Your task to perform on an android device: toggle priority inbox in the gmail app Image 0: 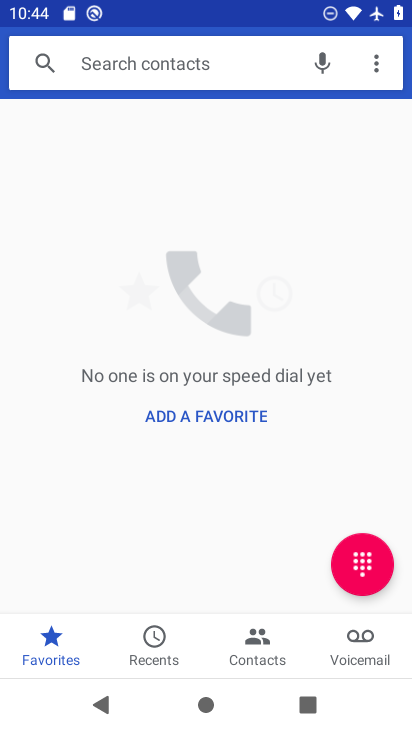
Step 0: press home button
Your task to perform on an android device: toggle priority inbox in the gmail app Image 1: 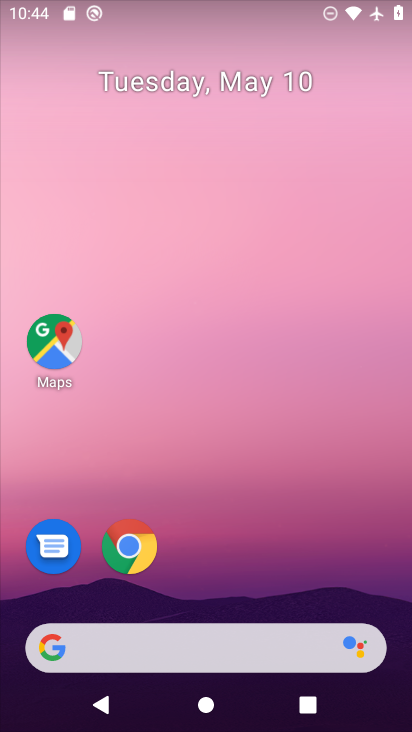
Step 1: drag from (334, 591) to (296, 149)
Your task to perform on an android device: toggle priority inbox in the gmail app Image 2: 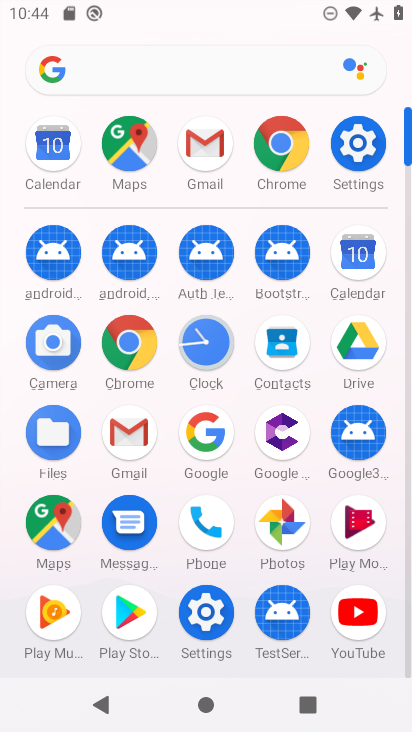
Step 2: click (212, 160)
Your task to perform on an android device: toggle priority inbox in the gmail app Image 3: 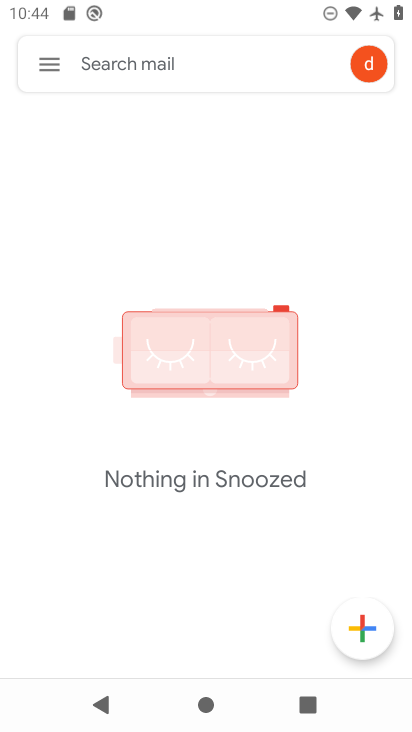
Step 3: click (47, 70)
Your task to perform on an android device: toggle priority inbox in the gmail app Image 4: 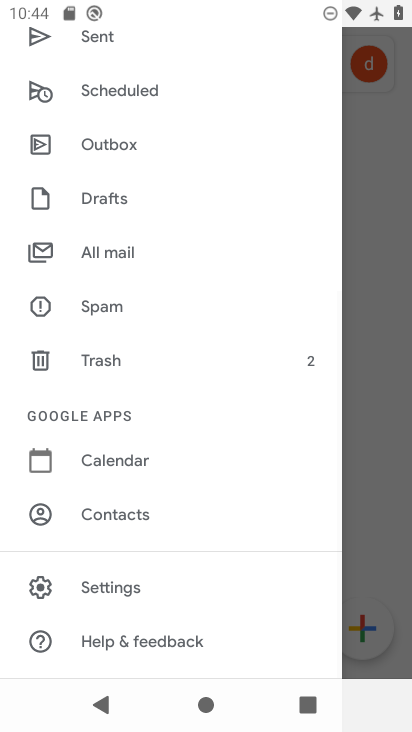
Step 4: click (121, 583)
Your task to perform on an android device: toggle priority inbox in the gmail app Image 5: 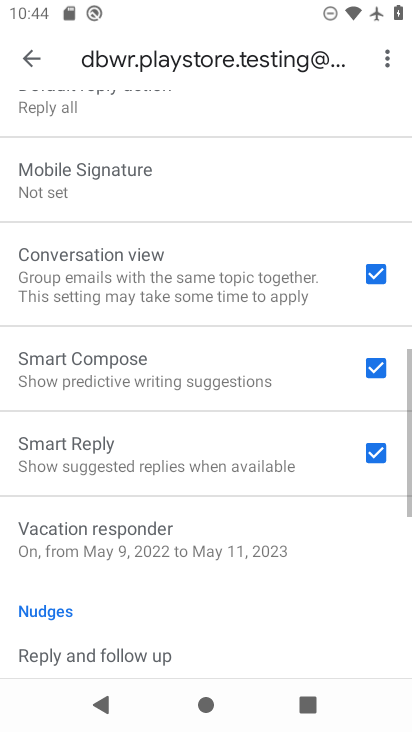
Step 5: drag from (260, 199) to (161, 593)
Your task to perform on an android device: toggle priority inbox in the gmail app Image 6: 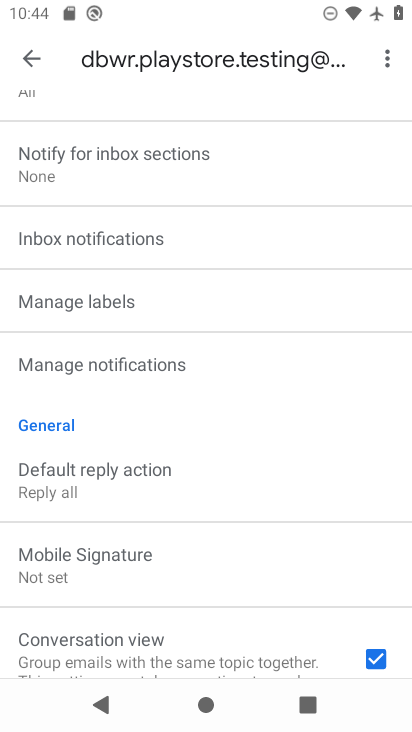
Step 6: drag from (249, 234) to (207, 635)
Your task to perform on an android device: toggle priority inbox in the gmail app Image 7: 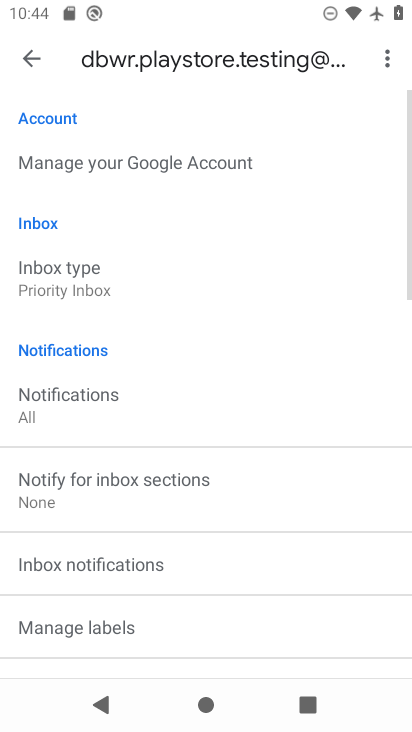
Step 7: drag from (204, 257) to (171, 430)
Your task to perform on an android device: toggle priority inbox in the gmail app Image 8: 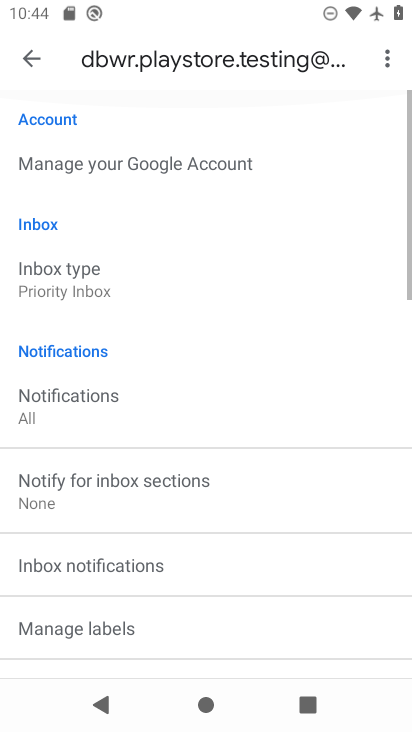
Step 8: click (91, 308)
Your task to perform on an android device: toggle priority inbox in the gmail app Image 9: 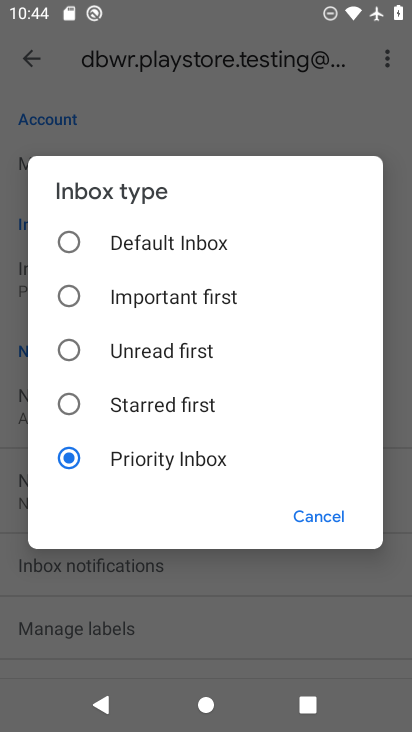
Step 9: click (134, 405)
Your task to perform on an android device: toggle priority inbox in the gmail app Image 10: 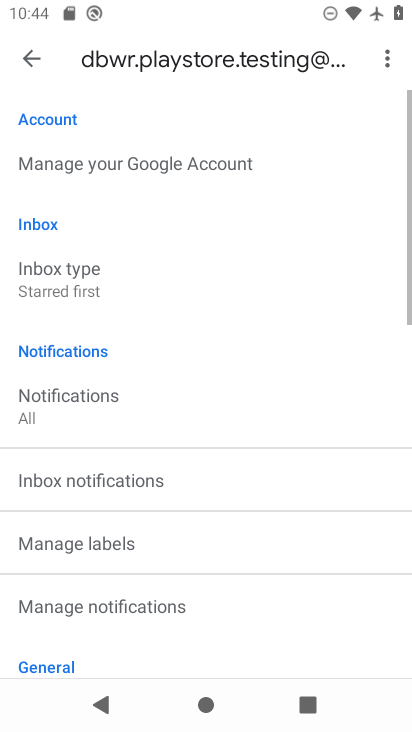
Step 10: task complete